Your task to perform on an android device: What's the weather going to be tomorrow? Image 0: 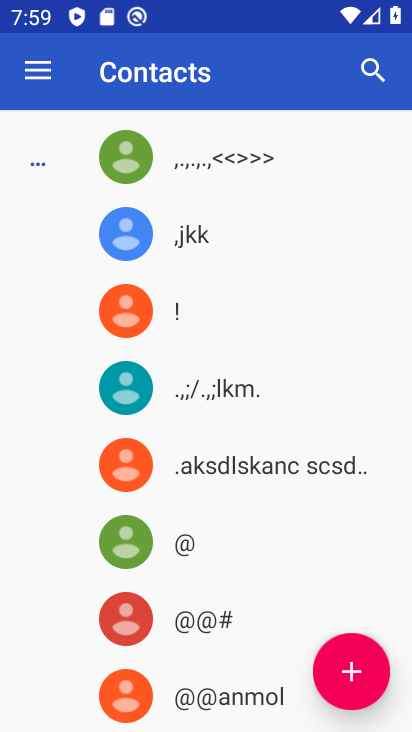
Step 0: press home button
Your task to perform on an android device: What's the weather going to be tomorrow? Image 1: 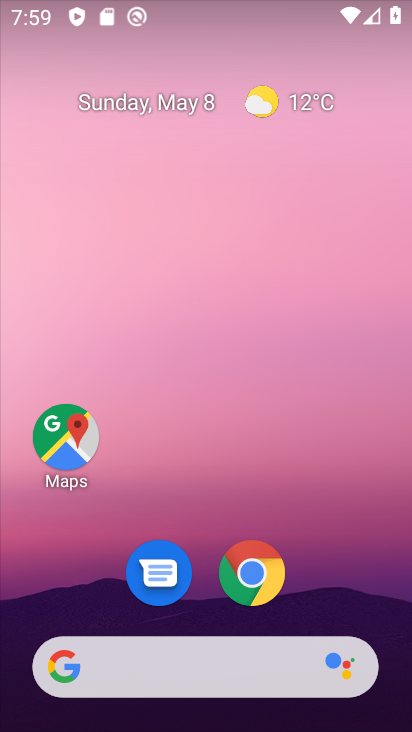
Step 1: click (264, 99)
Your task to perform on an android device: What's the weather going to be tomorrow? Image 2: 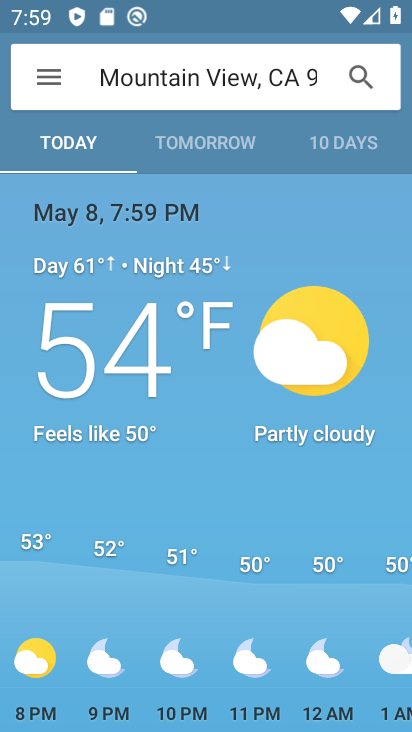
Step 2: click (218, 138)
Your task to perform on an android device: What's the weather going to be tomorrow? Image 3: 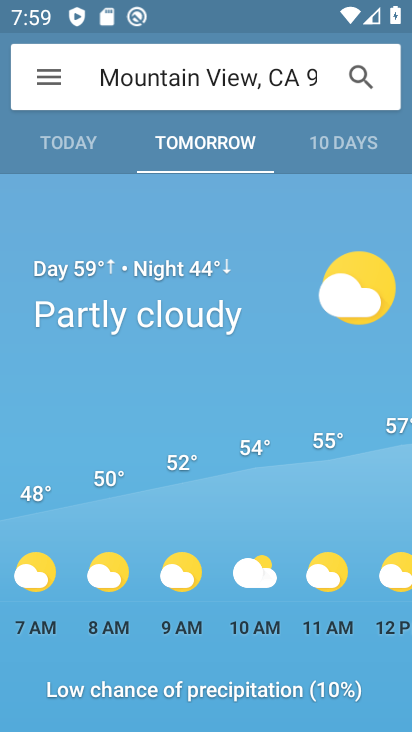
Step 3: task complete